Your task to perform on an android device: Check the weather Image 0: 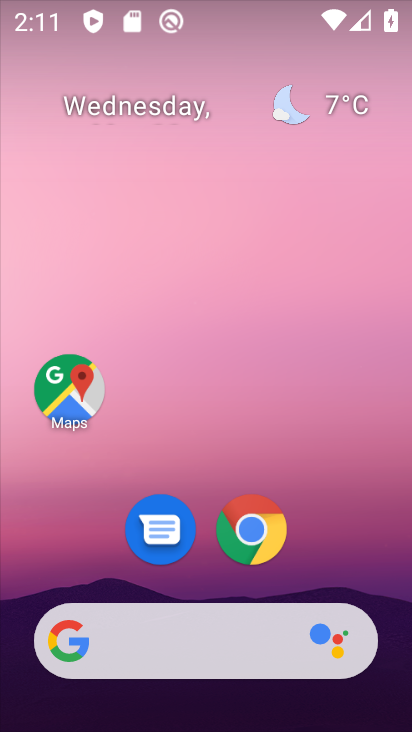
Step 0: drag from (350, 531) to (310, 0)
Your task to perform on an android device: Check the weather Image 1: 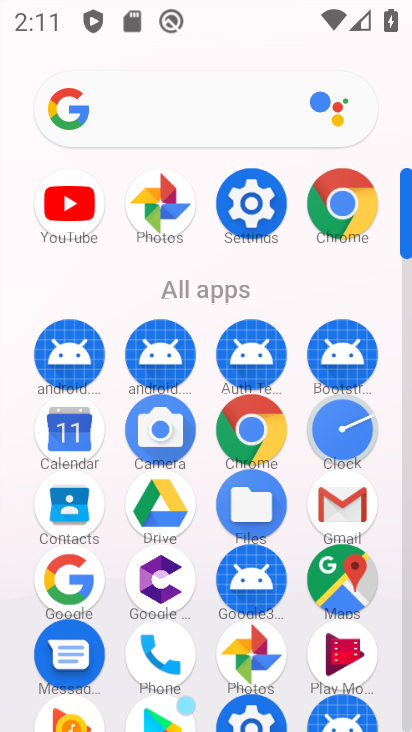
Step 1: press home button
Your task to perform on an android device: Check the weather Image 2: 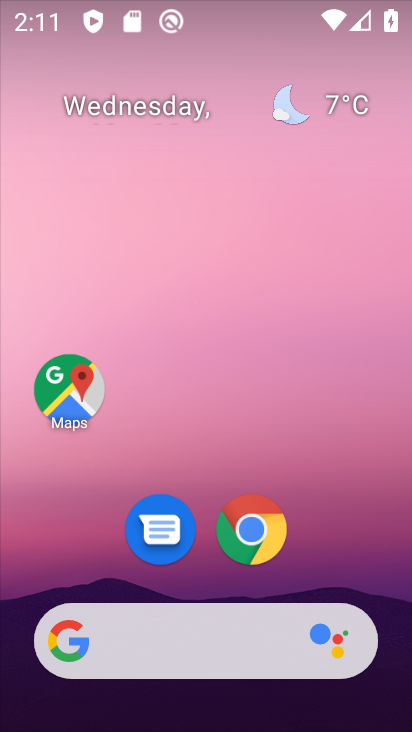
Step 2: drag from (361, 551) to (306, 77)
Your task to perform on an android device: Check the weather Image 3: 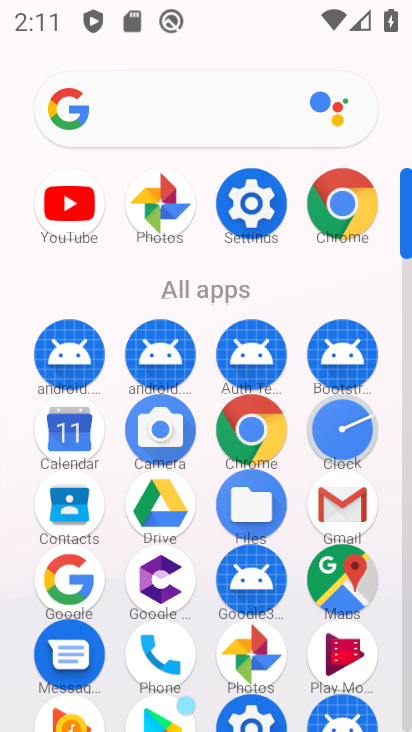
Step 3: press home button
Your task to perform on an android device: Check the weather Image 4: 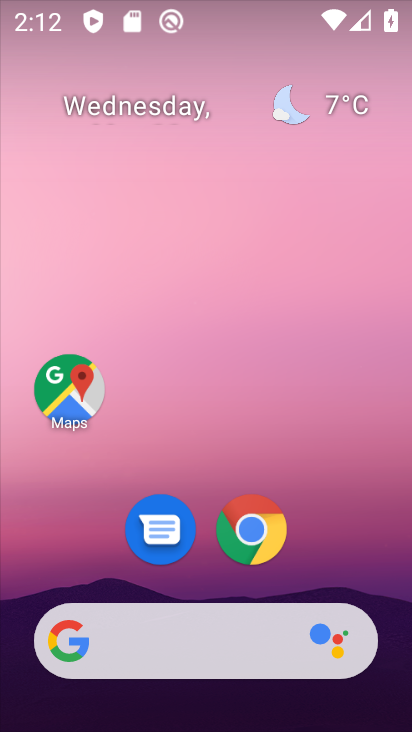
Step 4: click (363, 561)
Your task to perform on an android device: Check the weather Image 5: 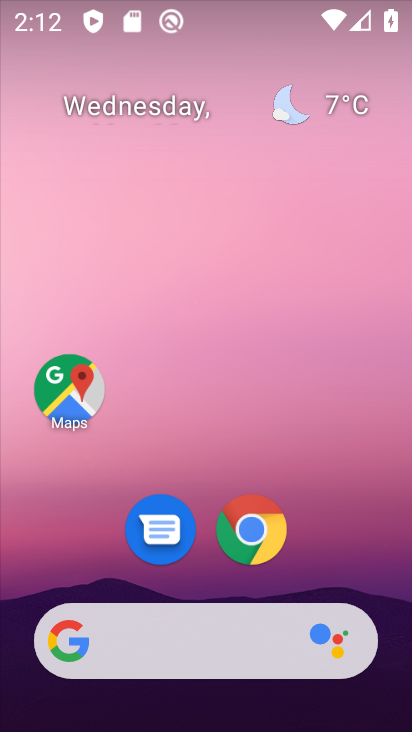
Step 5: click (312, 104)
Your task to perform on an android device: Check the weather Image 6: 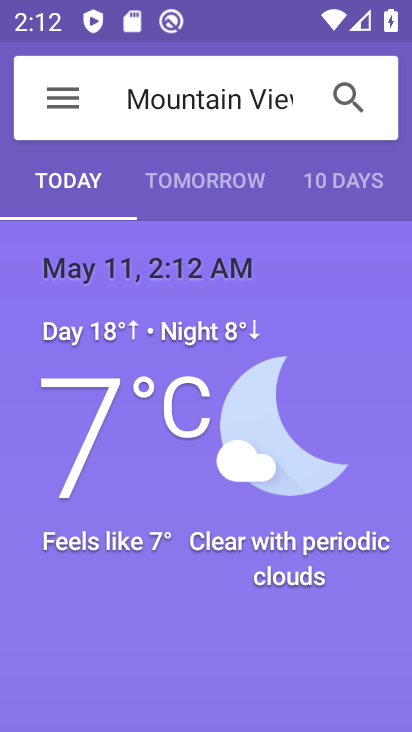
Step 6: task complete